Your task to perform on an android device: Open Yahoo.com Image 0: 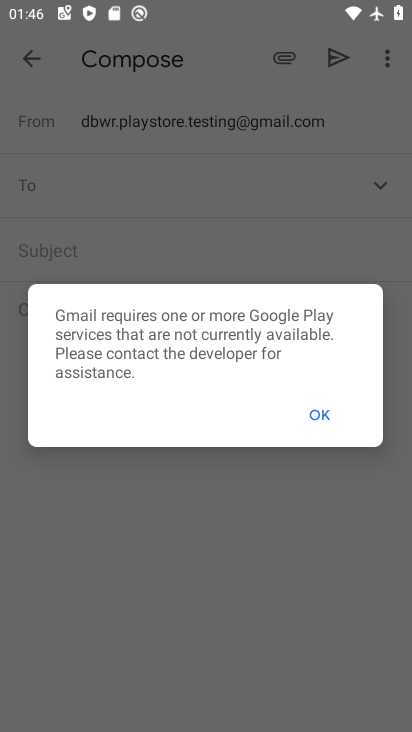
Step 0: press home button
Your task to perform on an android device: Open Yahoo.com Image 1: 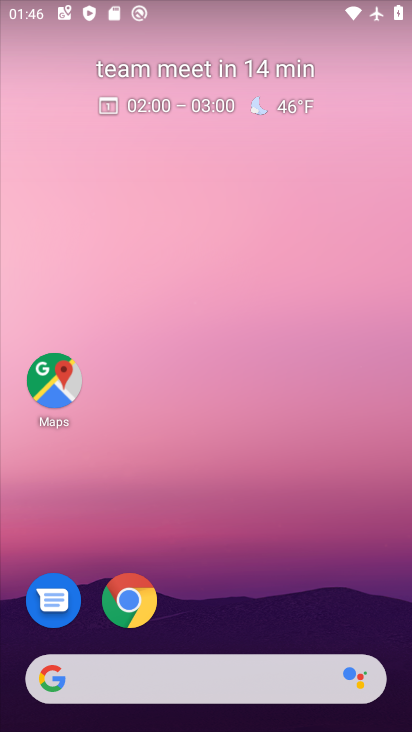
Step 1: click (136, 595)
Your task to perform on an android device: Open Yahoo.com Image 2: 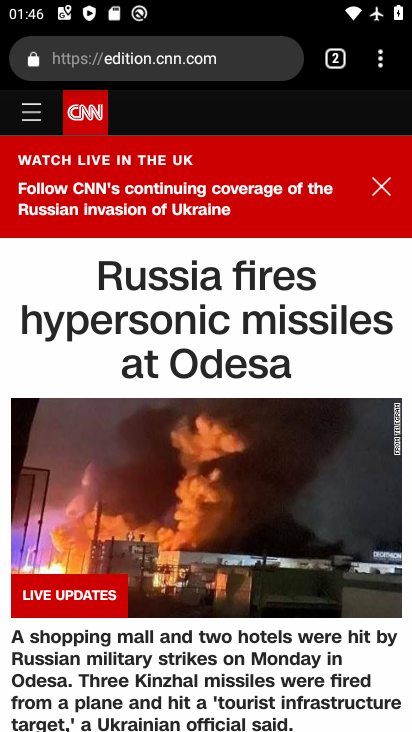
Step 2: click (345, 64)
Your task to perform on an android device: Open Yahoo.com Image 3: 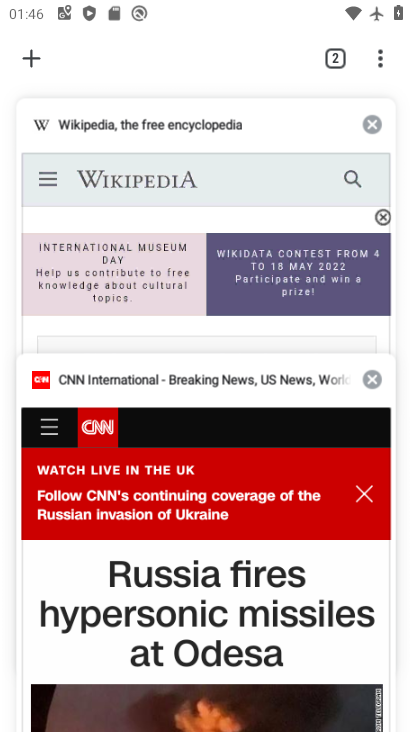
Step 3: click (35, 53)
Your task to perform on an android device: Open Yahoo.com Image 4: 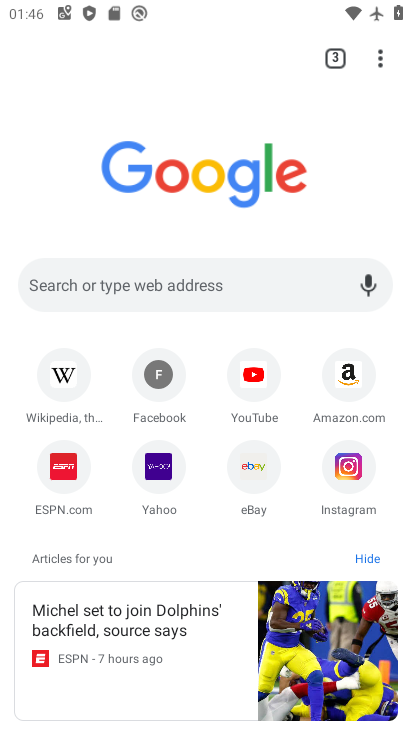
Step 4: click (155, 469)
Your task to perform on an android device: Open Yahoo.com Image 5: 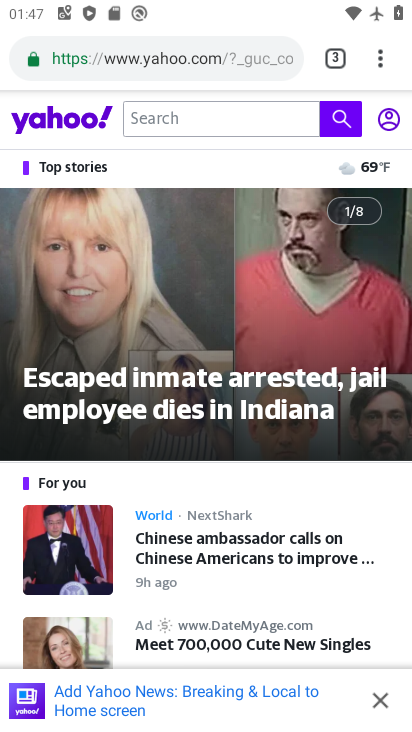
Step 5: task complete